Your task to perform on an android device: Open sound settings Image 0: 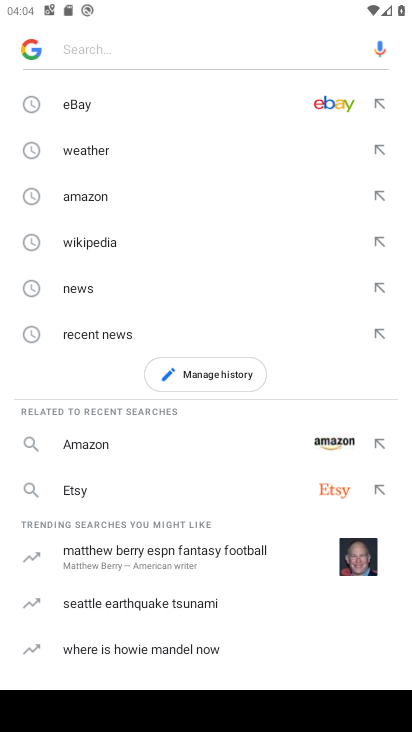
Step 0: drag from (280, 6) to (227, 617)
Your task to perform on an android device: Open sound settings Image 1: 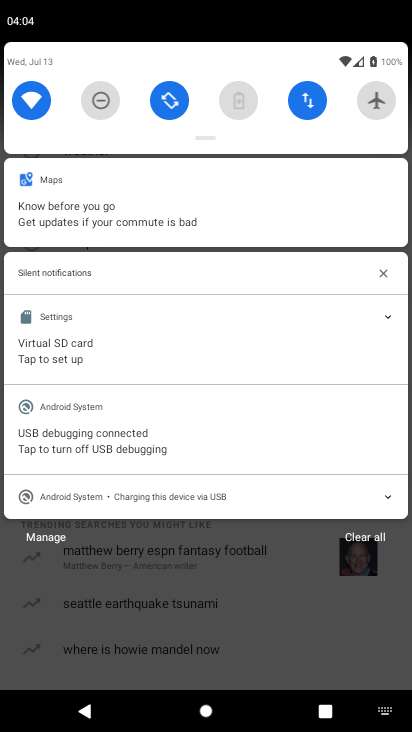
Step 1: drag from (207, 69) to (265, 667)
Your task to perform on an android device: Open sound settings Image 2: 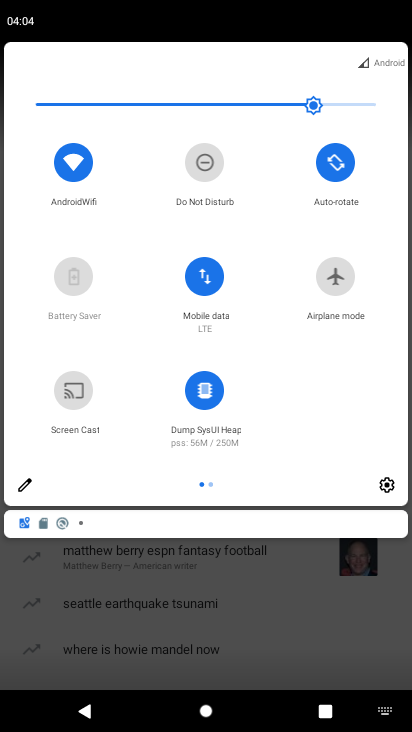
Step 2: click (386, 486)
Your task to perform on an android device: Open sound settings Image 3: 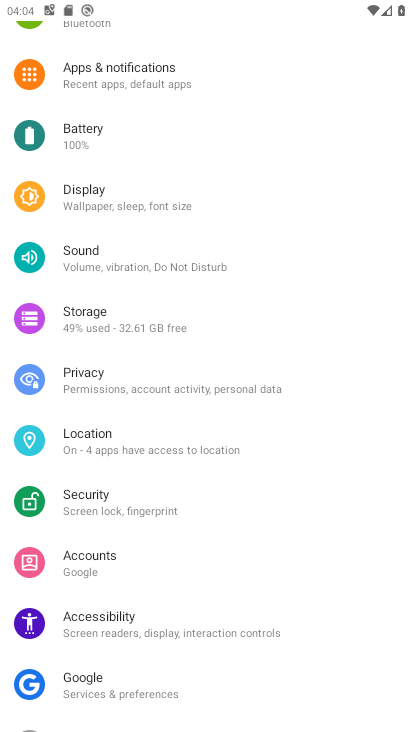
Step 3: click (94, 257)
Your task to perform on an android device: Open sound settings Image 4: 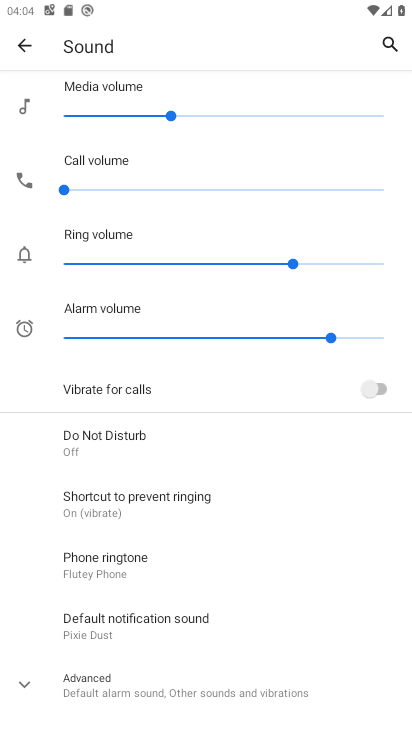
Step 4: task complete